Your task to perform on an android device: change notification settings in the gmail app Image 0: 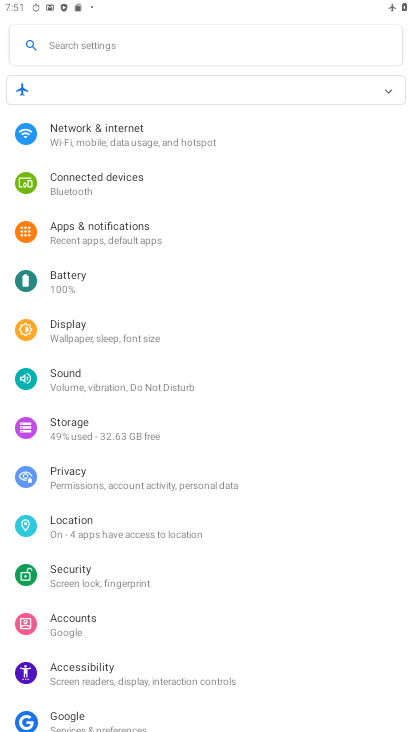
Step 0: press back button
Your task to perform on an android device: change notification settings in the gmail app Image 1: 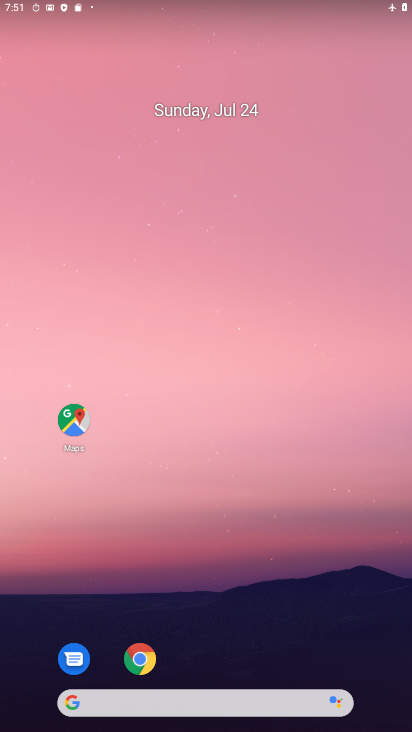
Step 1: drag from (249, 201) to (281, 18)
Your task to perform on an android device: change notification settings in the gmail app Image 2: 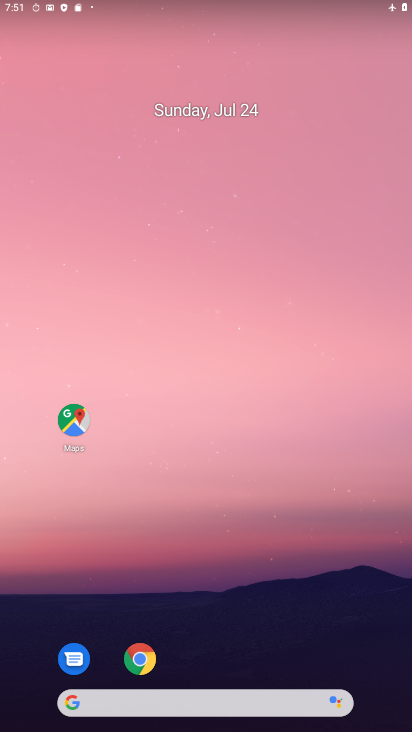
Step 2: drag from (151, 488) to (182, 11)
Your task to perform on an android device: change notification settings in the gmail app Image 3: 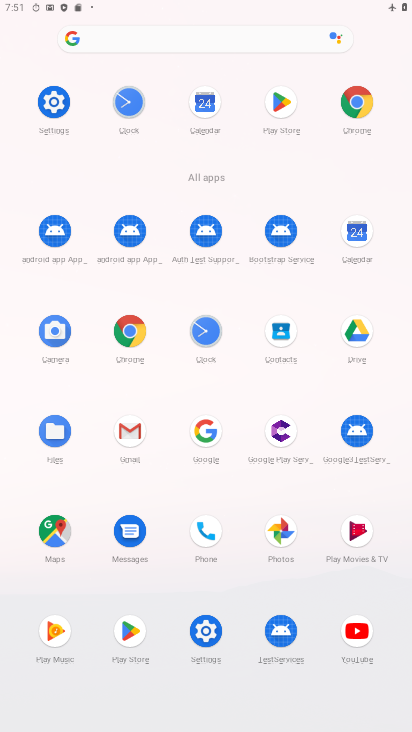
Step 3: click (123, 428)
Your task to perform on an android device: change notification settings in the gmail app Image 4: 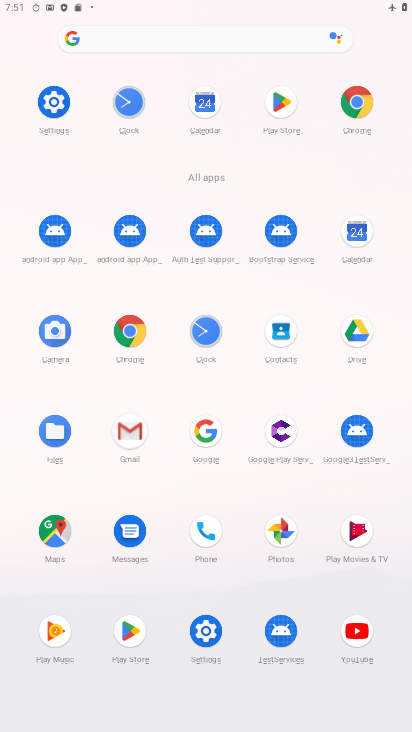
Step 4: click (125, 430)
Your task to perform on an android device: change notification settings in the gmail app Image 5: 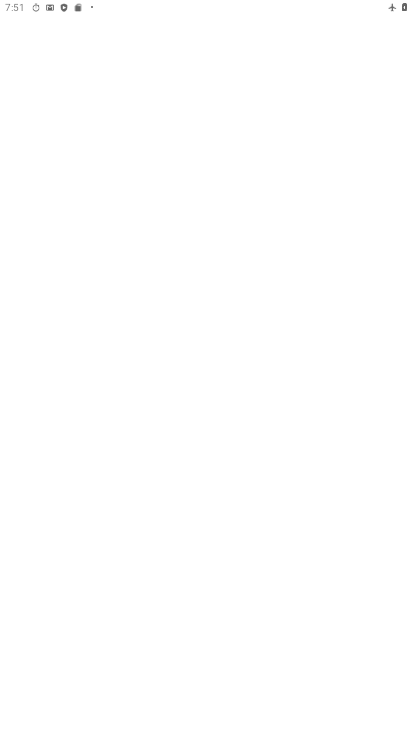
Step 5: click (124, 432)
Your task to perform on an android device: change notification settings in the gmail app Image 6: 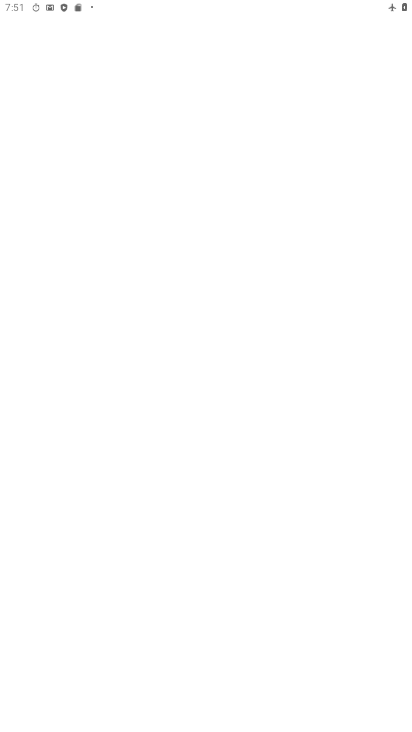
Step 6: click (124, 432)
Your task to perform on an android device: change notification settings in the gmail app Image 7: 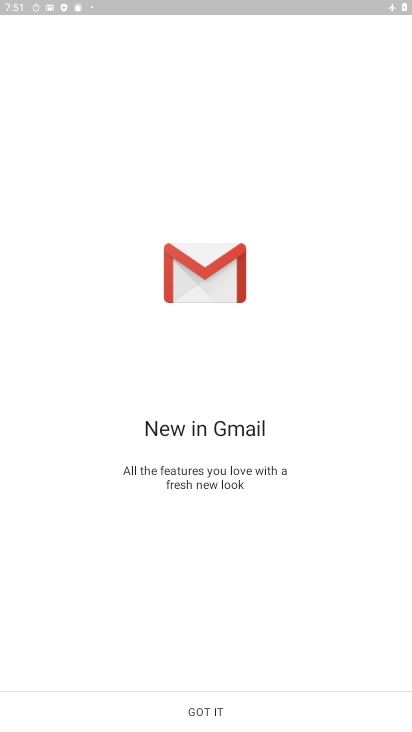
Step 7: click (211, 702)
Your task to perform on an android device: change notification settings in the gmail app Image 8: 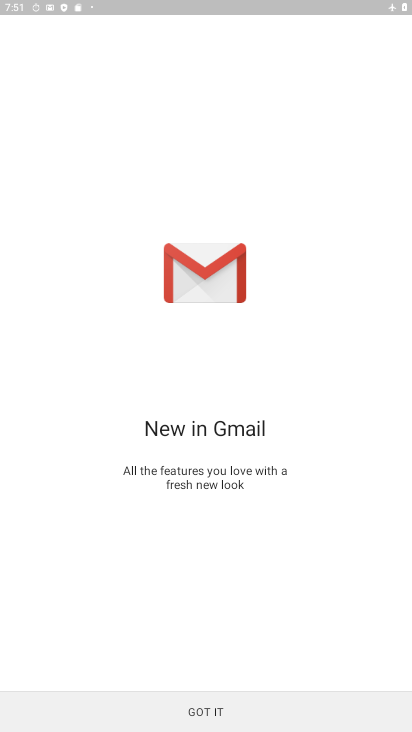
Step 8: click (211, 702)
Your task to perform on an android device: change notification settings in the gmail app Image 9: 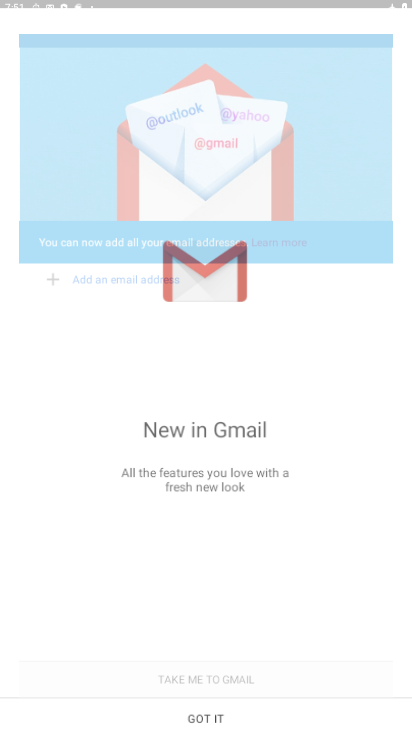
Step 9: click (212, 703)
Your task to perform on an android device: change notification settings in the gmail app Image 10: 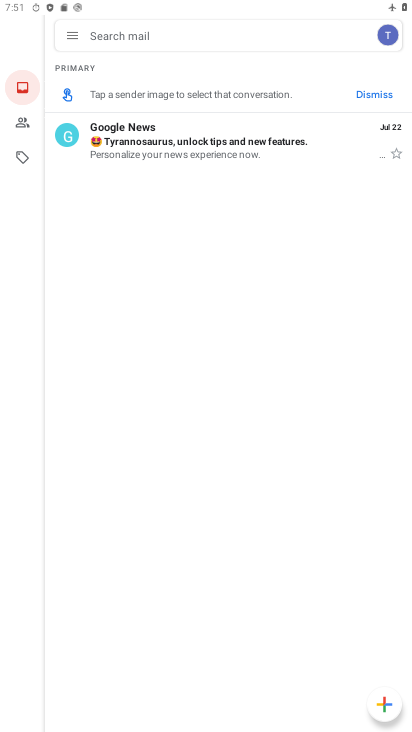
Step 10: click (76, 36)
Your task to perform on an android device: change notification settings in the gmail app Image 11: 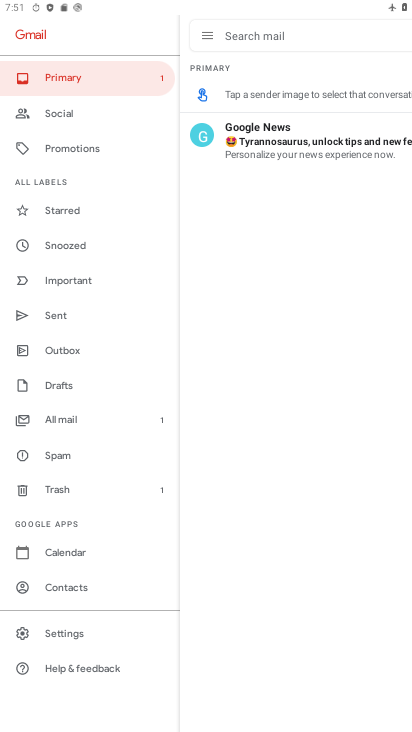
Step 11: drag from (79, 671) to (140, 184)
Your task to perform on an android device: change notification settings in the gmail app Image 12: 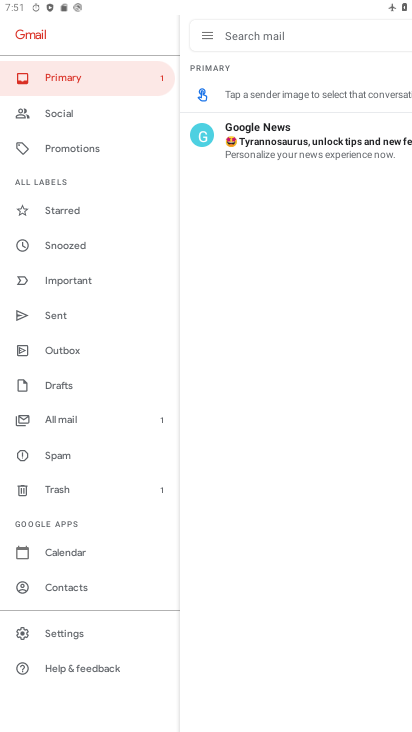
Step 12: drag from (91, 484) to (84, 169)
Your task to perform on an android device: change notification settings in the gmail app Image 13: 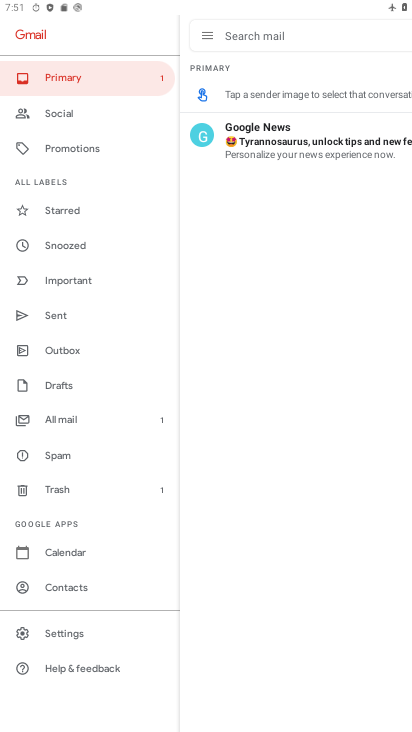
Step 13: click (67, 636)
Your task to perform on an android device: change notification settings in the gmail app Image 14: 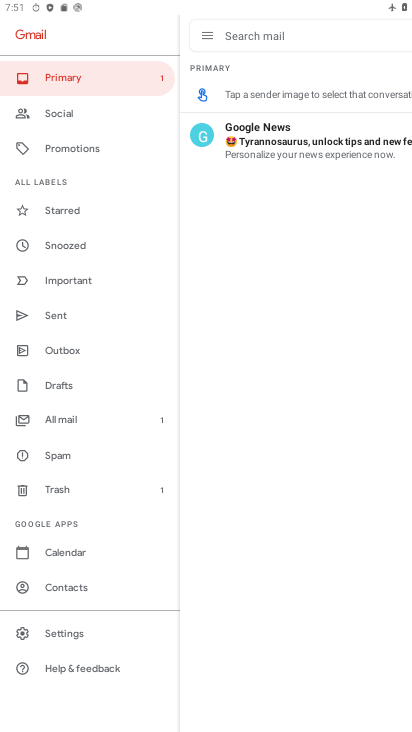
Step 14: click (67, 636)
Your task to perform on an android device: change notification settings in the gmail app Image 15: 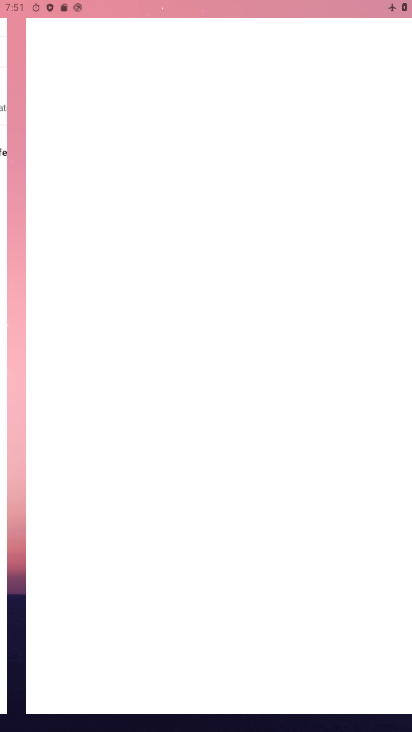
Step 15: click (67, 636)
Your task to perform on an android device: change notification settings in the gmail app Image 16: 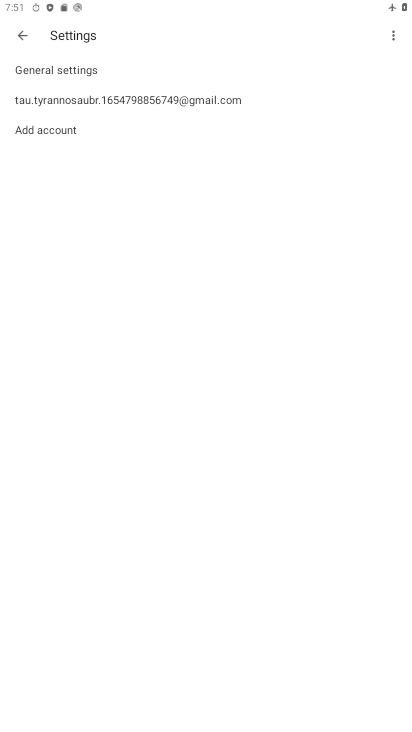
Step 16: click (61, 93)
Your task to perform on an android device: change notification settings in the gmail app Image 17: 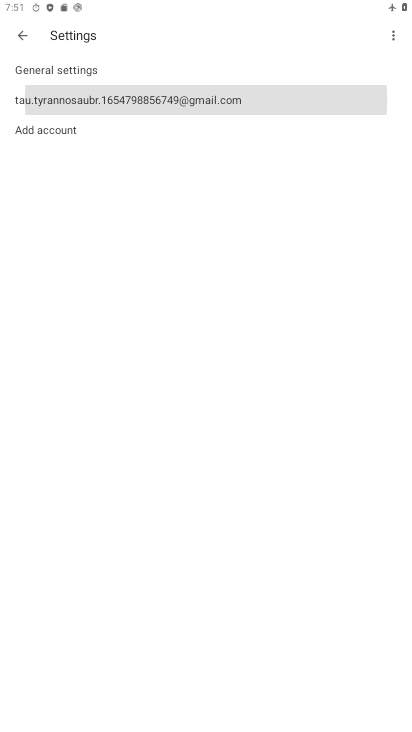
Step 17: click (63, 94)
Your task to perform on an android device: change notification settings in the gmail app Image 18: 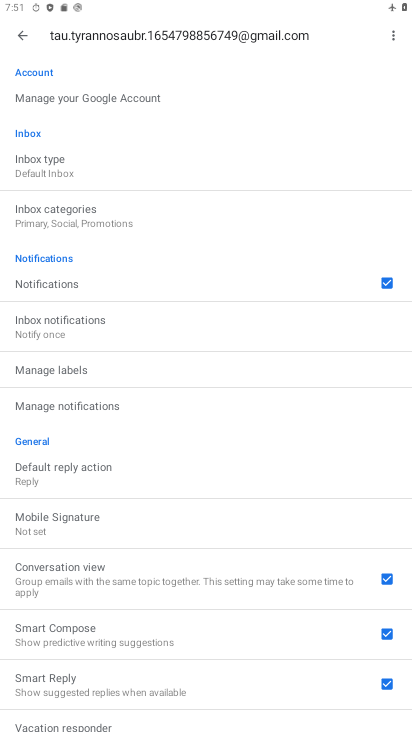
Step 18: click (37, 278)
Your task to perform on an android device: change notification settings in the gmail app Image 19: 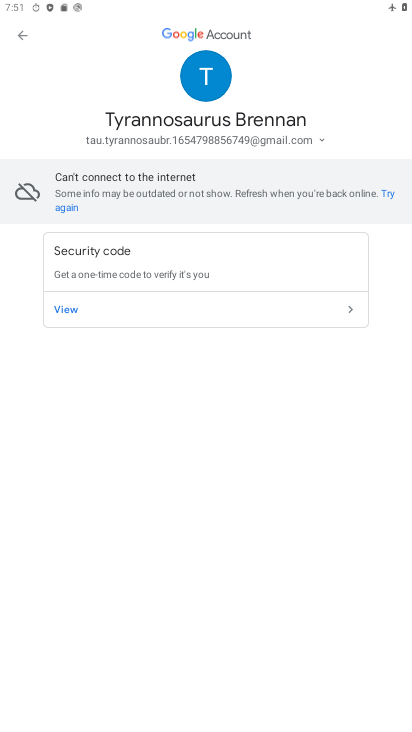
Step 19: task complete